Your task to perform on an android device: turn off airplane mode Image 0: 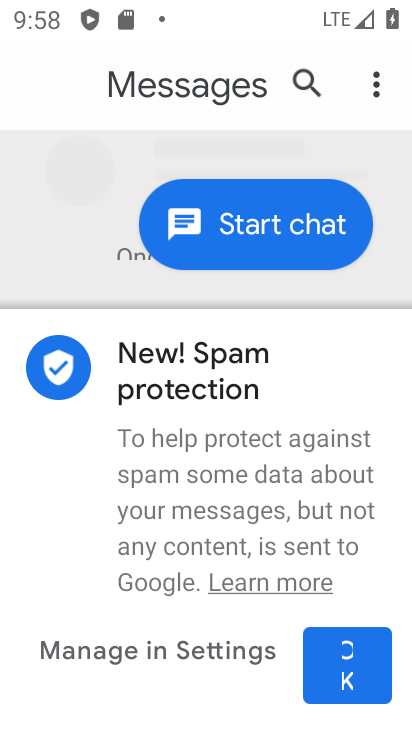
Step 0: press home button
Your task to perform on an android device: turn off airplane mode Image 1: 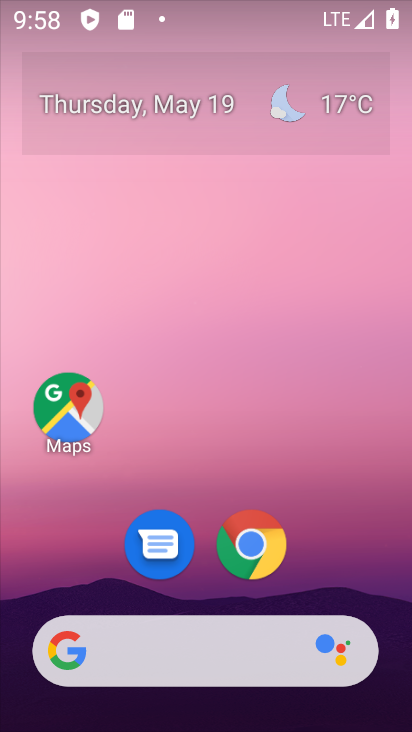
Step 1: drag from (180, 718) to (104, 197)
Your task to perform on an android device: turn off airplane mode Image 2: 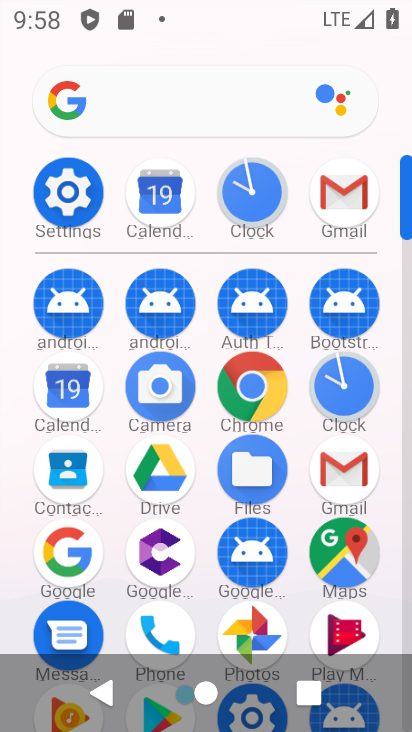
Step 2: click (66, 198)
Your task to perform on an android device: turn off airplane mode Image 3: 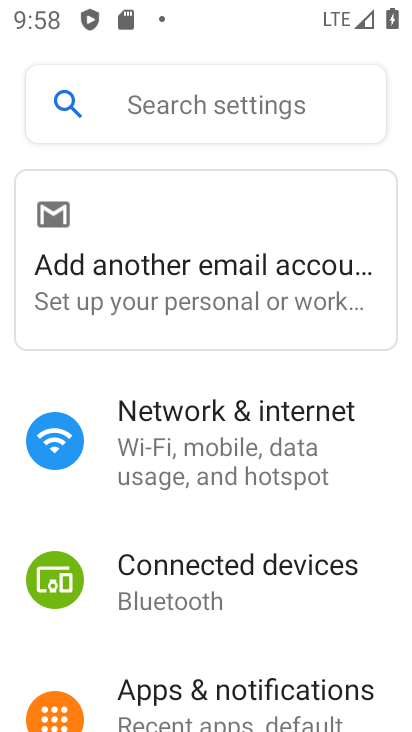
Step 3: click (222, 469)
Your task to perform on an android device: turn off airplane mode Image 4: 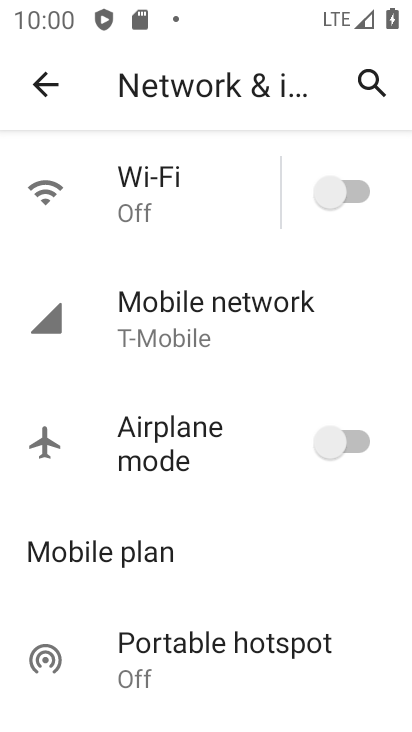
Step 4: task complete